Your task to perform on an android device: turn on location history Image 0: 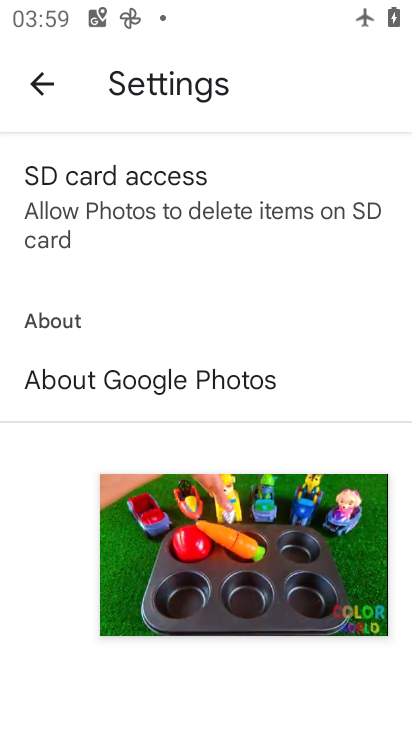
Step 0: task impossible